Your task to perform on an android device: turn on improve location accuracy Image 0: 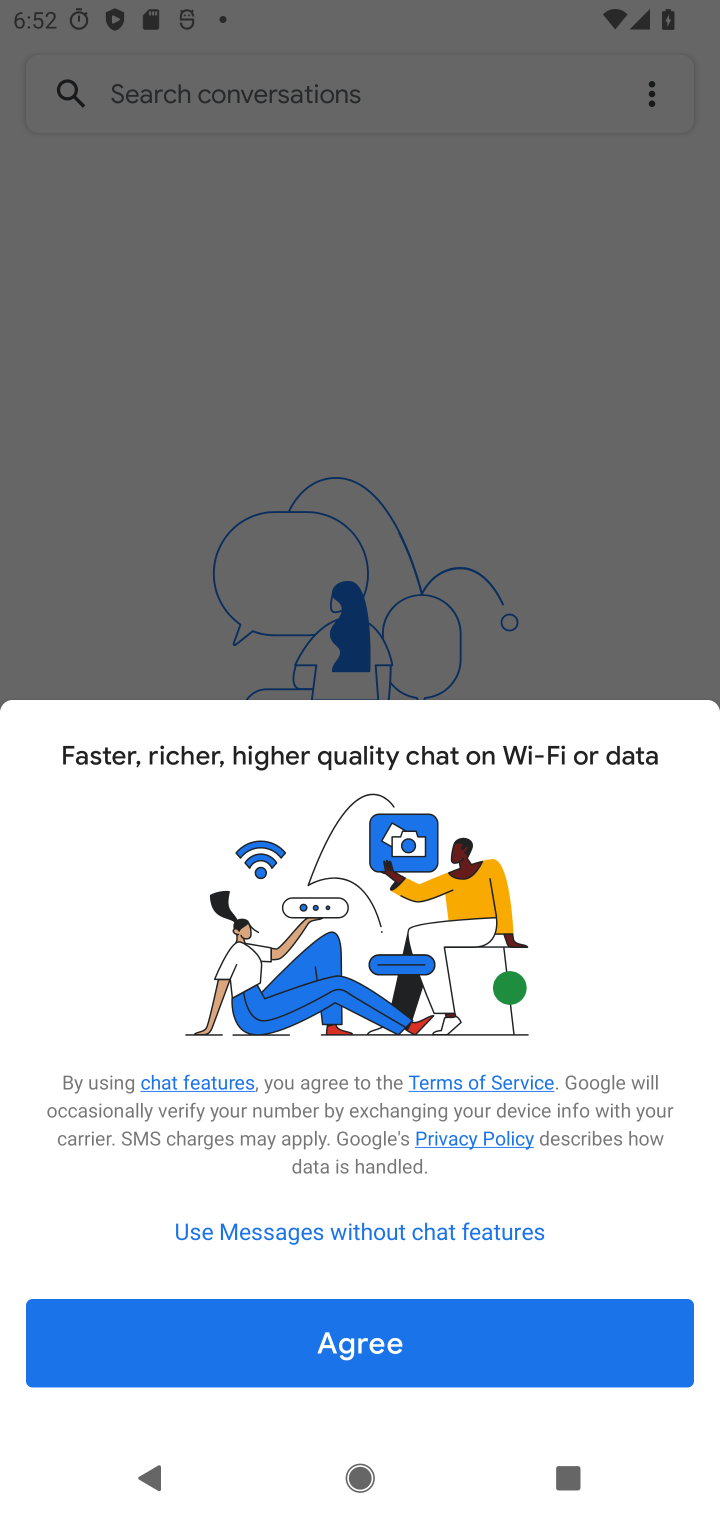
Step 0: press home button
Your task to perform on an android device: turn on improve location accuracy Image 1: 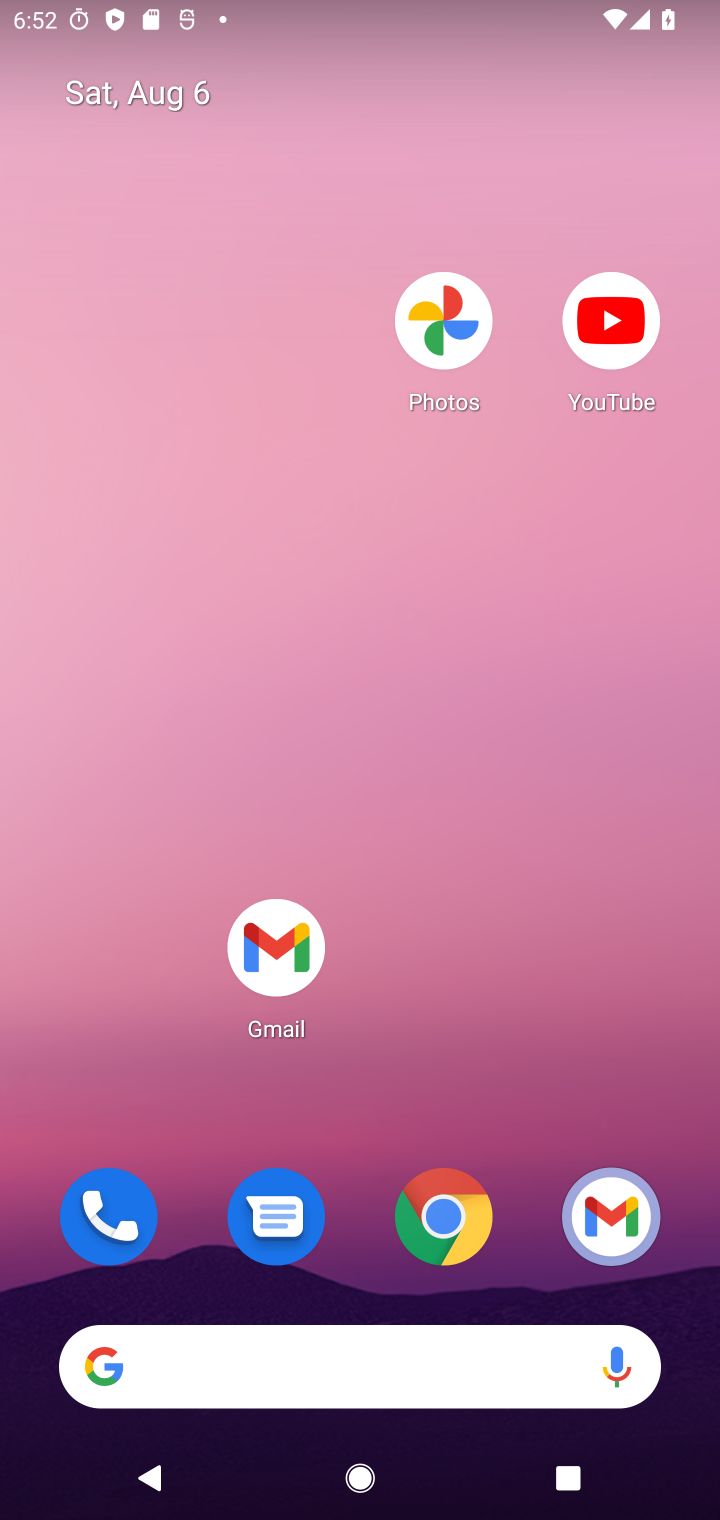
Step 1: drag from (513, 753) to (499, 137)
Your task to perform on an android device: turn on improve location accuracy Image 2: 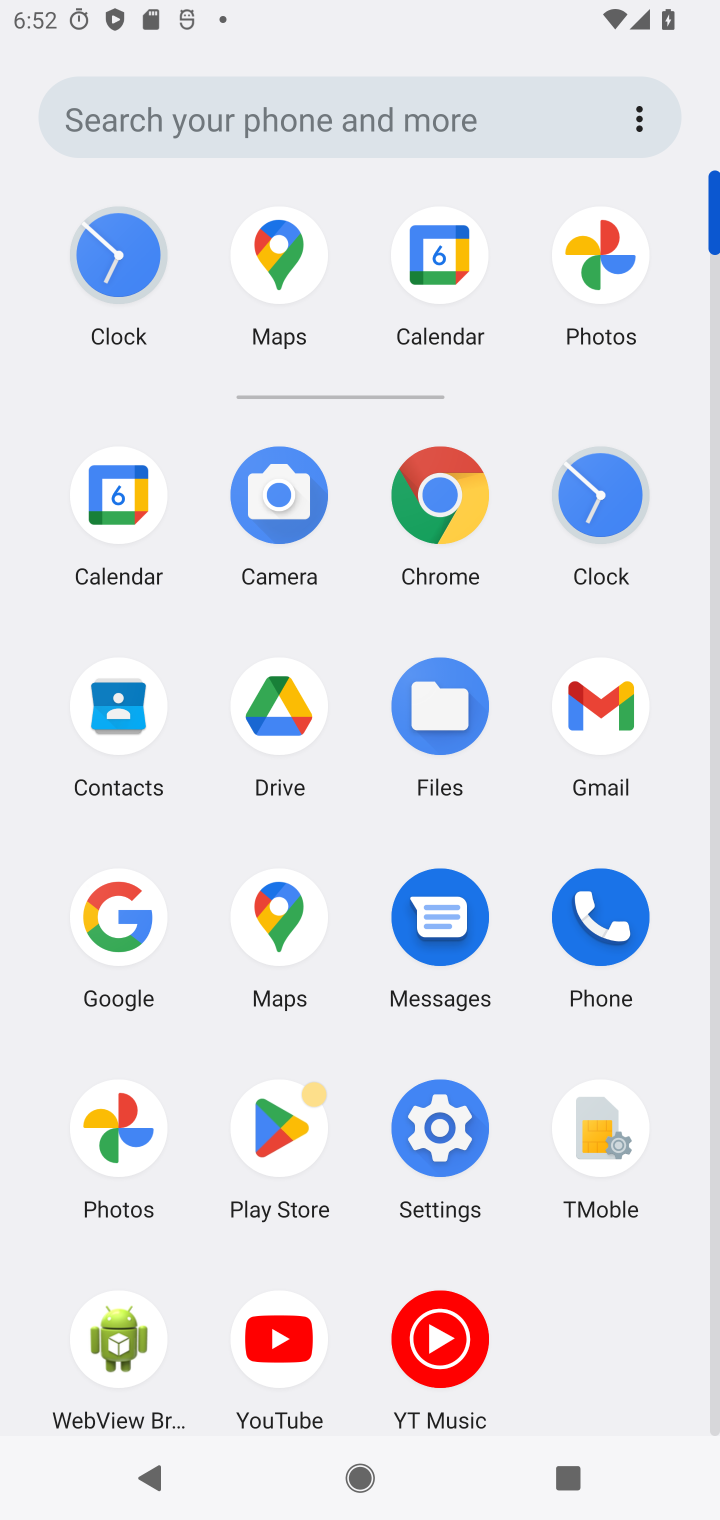
Step 2: click (394, 1139)
Your task to perform on an android device: turn on improve location accuracy Image 3: 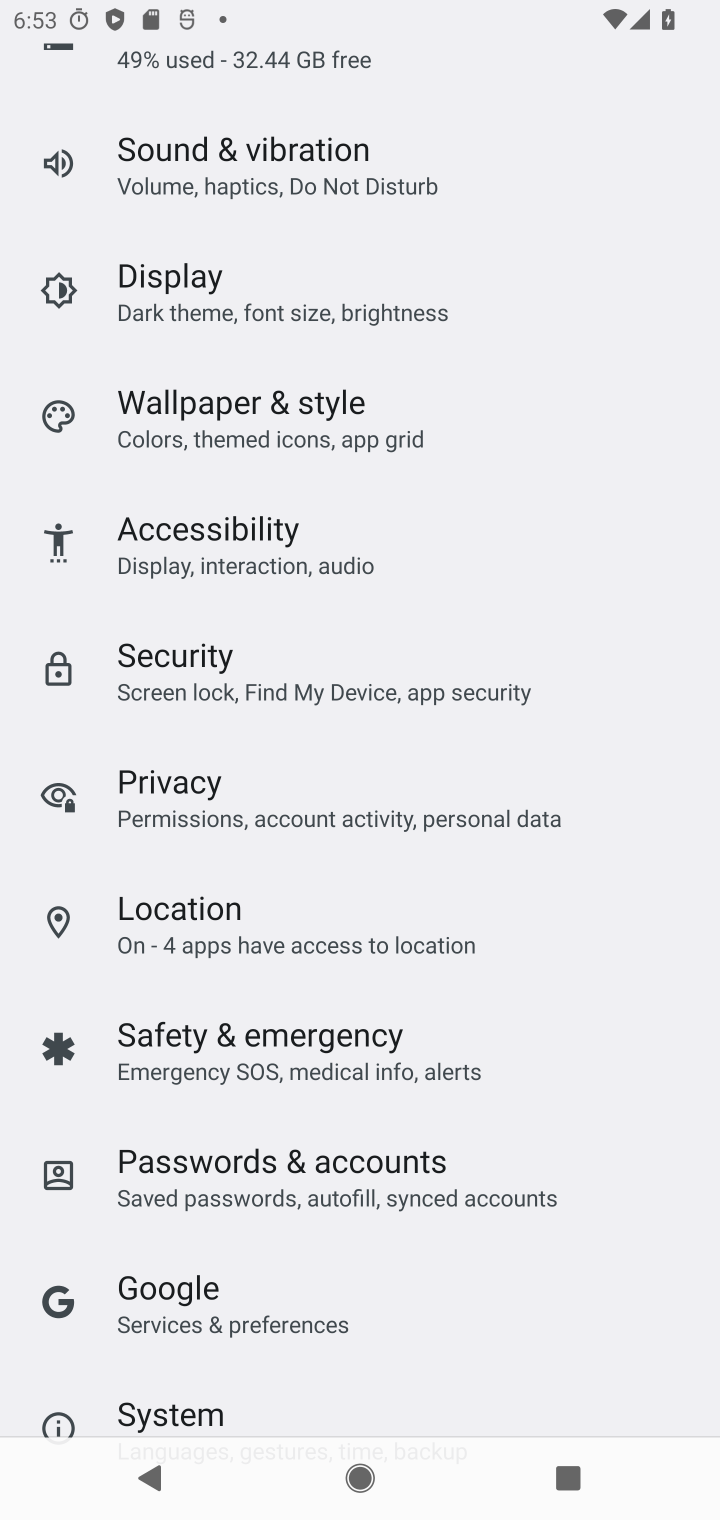
Step 3: click (284, 939)
Your task to perform on an android device: turn on improve location accuracy Image 4: 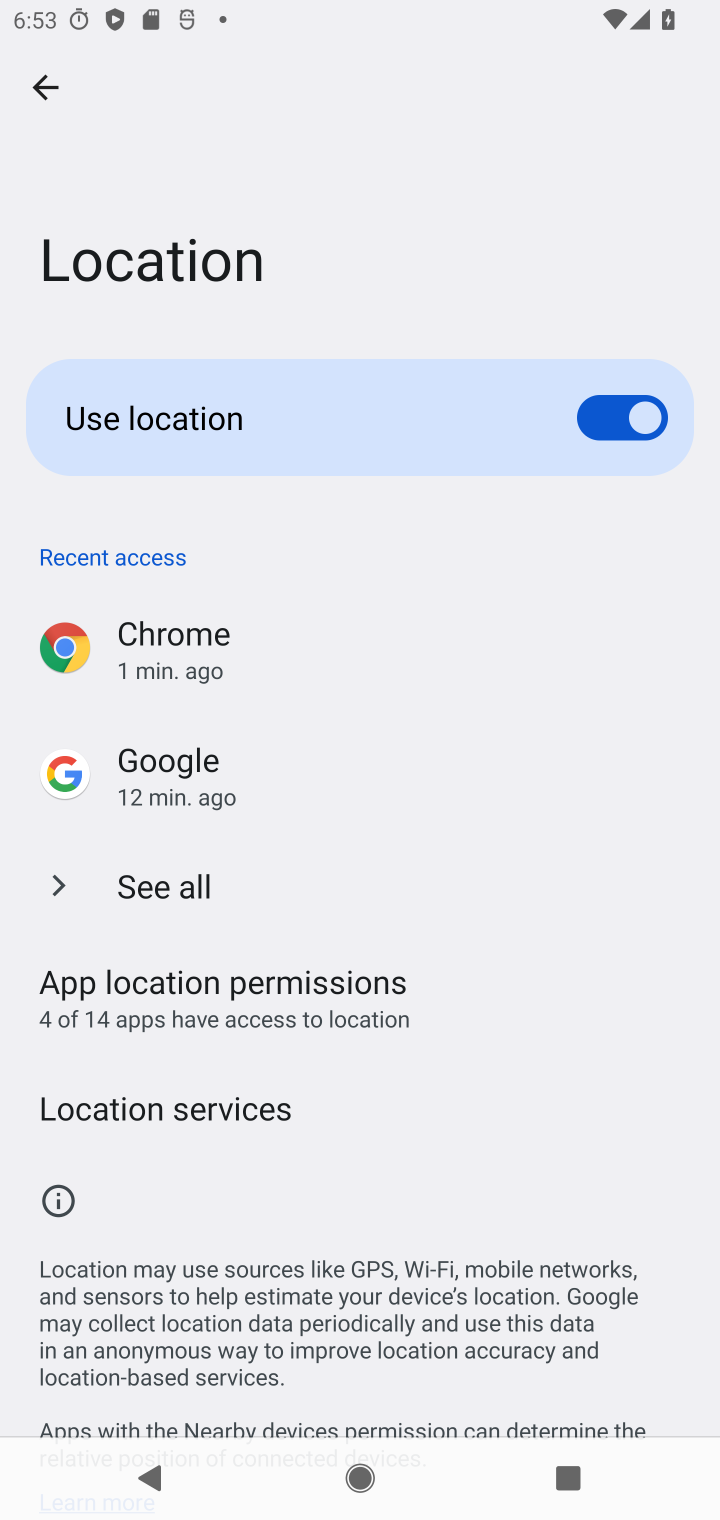
Step 4: click (257, 1108)
Your task to perform on an android device: turn on improve location accuracy Image 5: 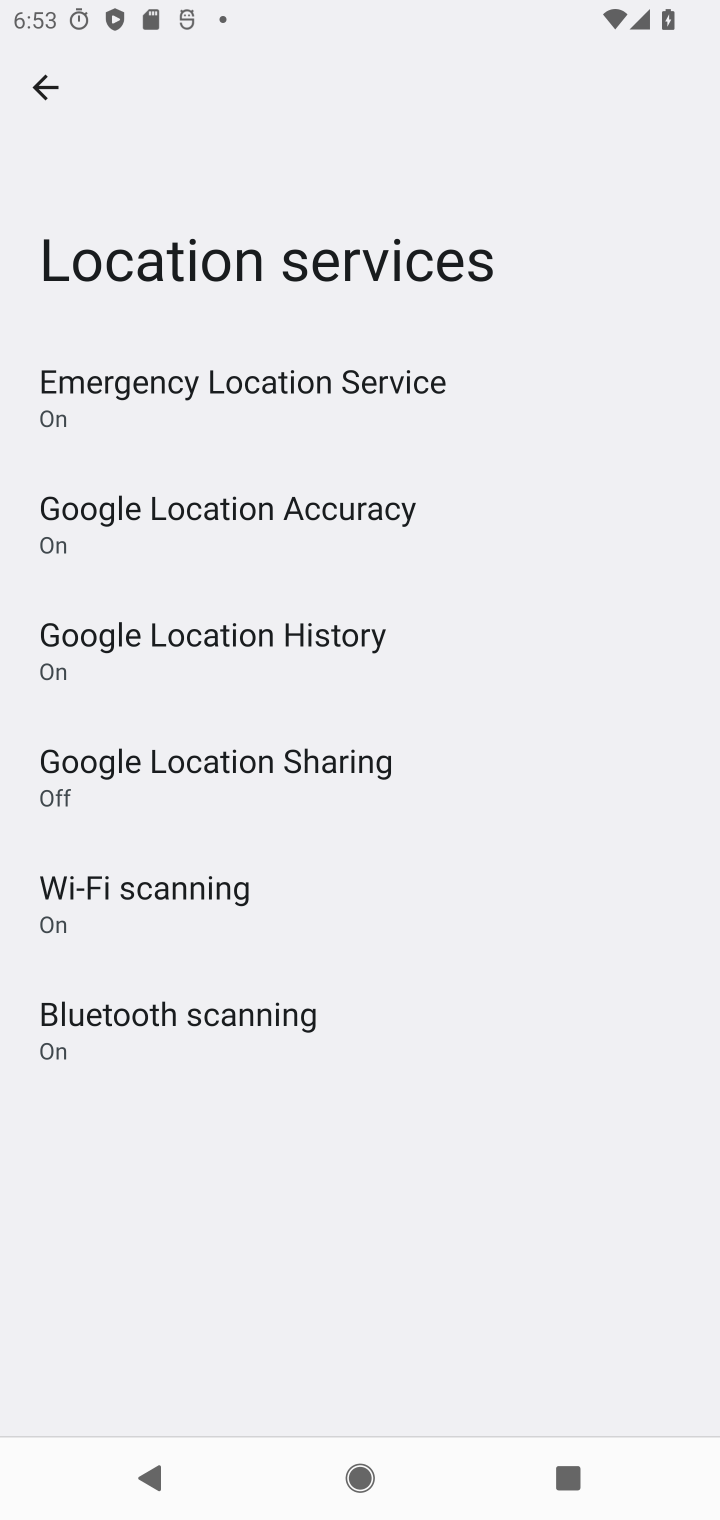
Step 5: click (423, 509)
Your task to perform on an android device: turn on improve location accuracy Image 6: 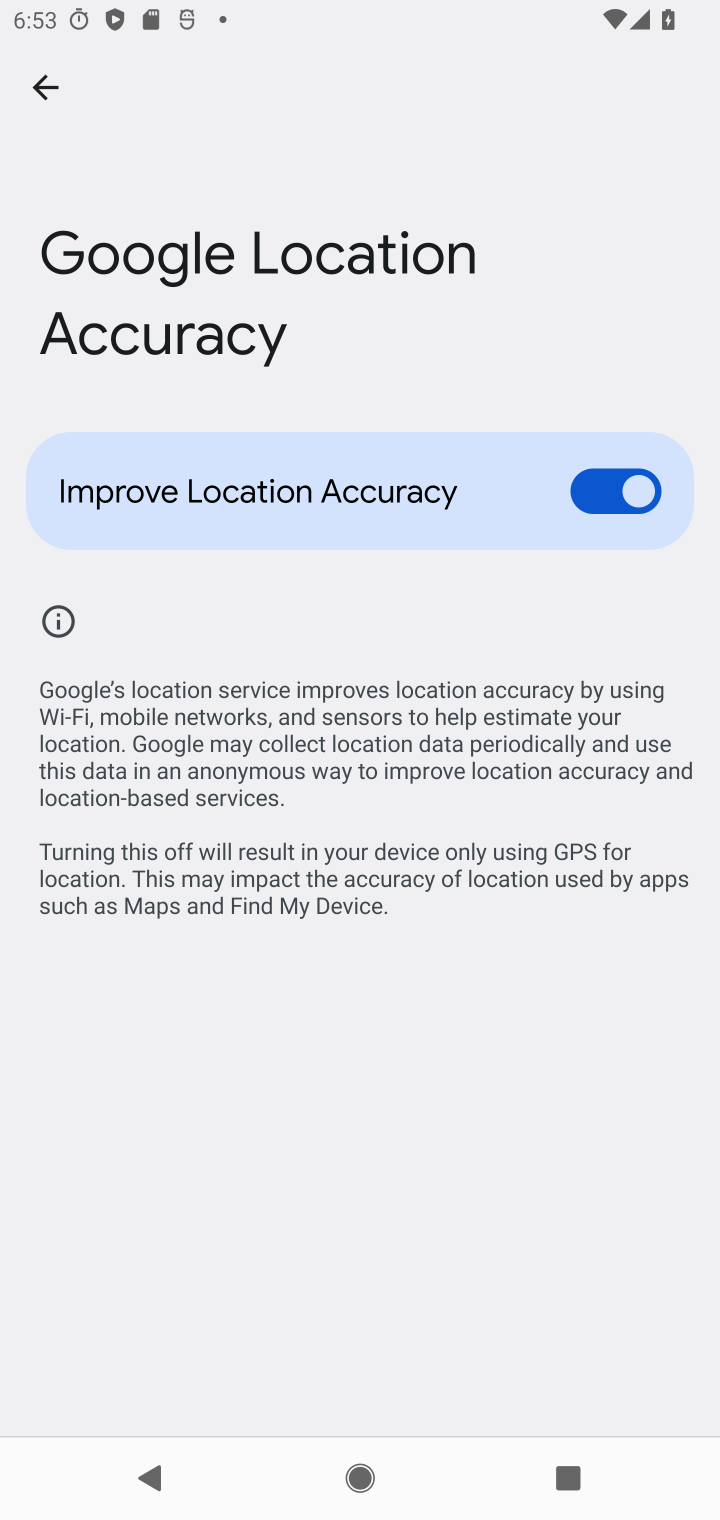
Step 6: task complete